Your task to perform on an android device: check battery use Image 0: 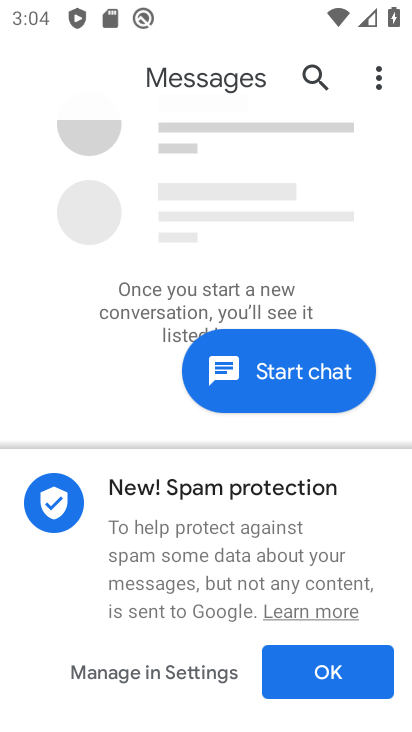
Step 0: press home button
Your task to perform on an android device: check battery use Image 1: 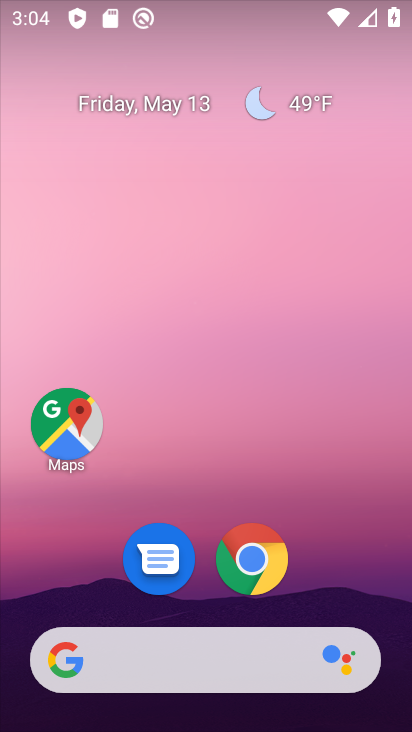
Step 1: drag from (384, 626) to (342, 88)
Your task to perform on an android device: check battery use Image 2: 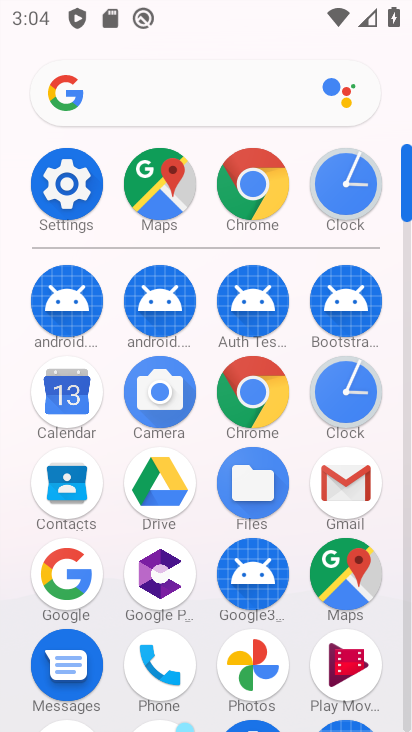
Step 2: click (411, 716)
Your task to perform on an android device: check battery use Image 3: 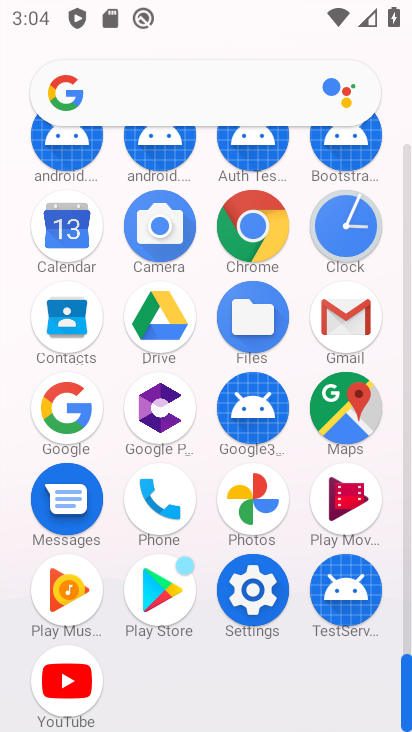
Step 3: click (241, 585)
Your task to perform on an android device: check battery use Image 4: 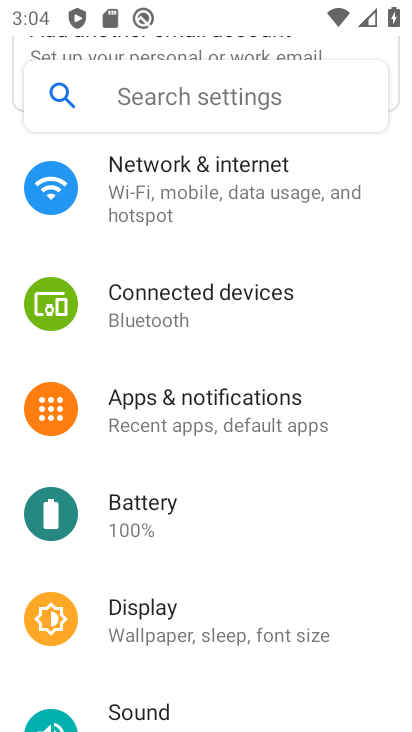
Step 4: click (153, 509)
Your task to perform on an android device: check battery use Image 5: 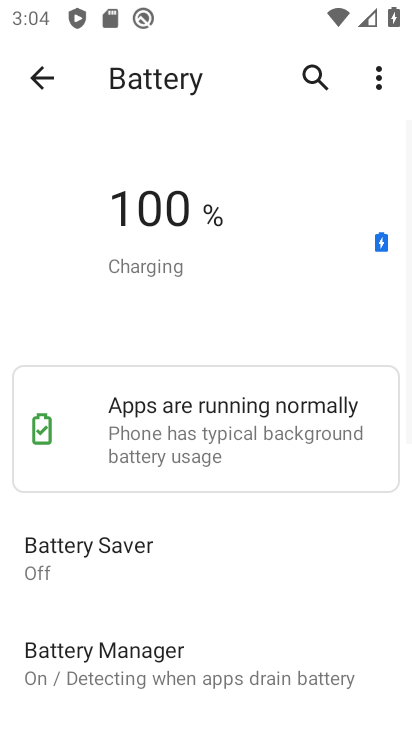
Step 5: drag from (216, 601) to (225, 297)
Your task to perform on an android device: check battery use Image 6: 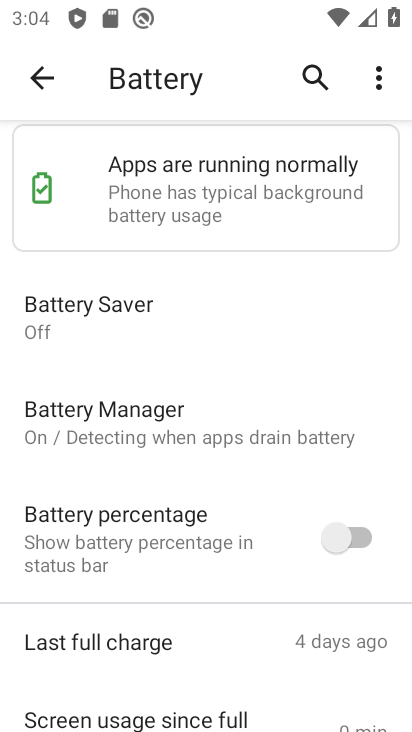
Step 6: click (374, 76)
Your task to perform on an android device: check battery use Image 7: 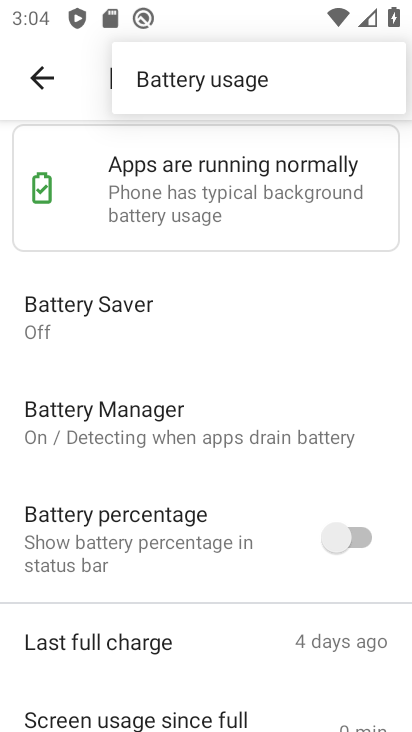
Step 7: click (179, 74)
Your task to perform on an android device: check battery use Image 8: 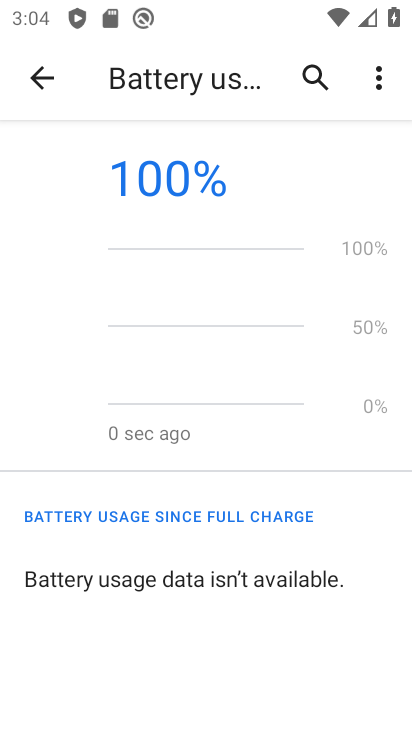
Step 8: task complete